Your task to perform on an android device: set the stopwatch Image 0: 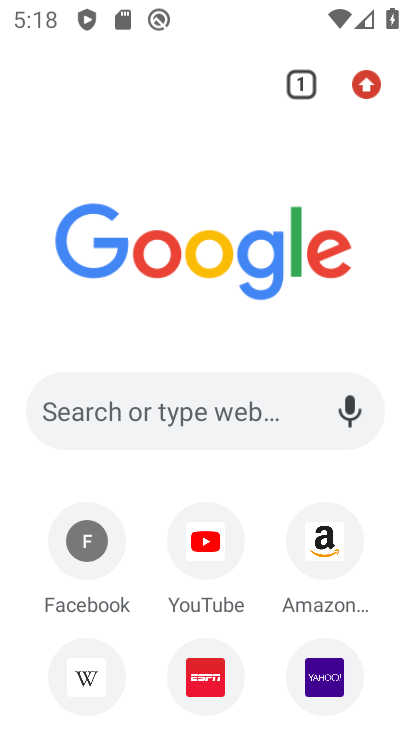
Step 0: press home button
Your task to perform on an android device: set the stopwatch Image 1: 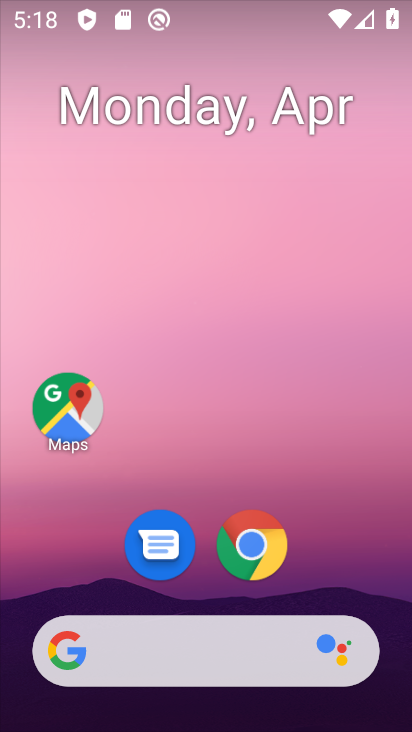
Step 1: drag from (328, 575) to (368, 154)
Your task to perform on an android device: set the stopwatch Image 2: 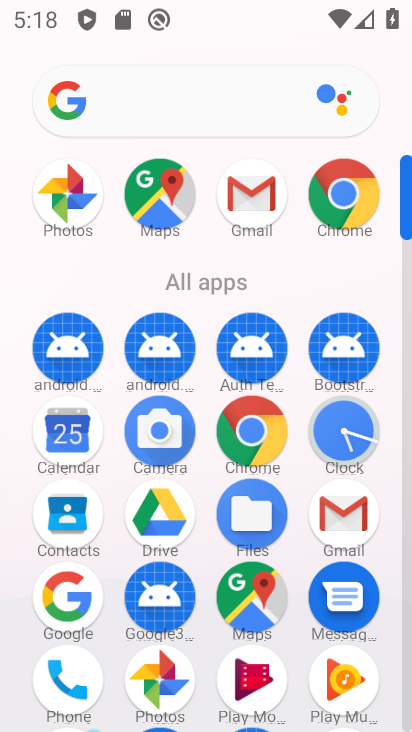
Step 2: click (346, 442)
Your task to perform on an android device: set the stopwatch Image 3: 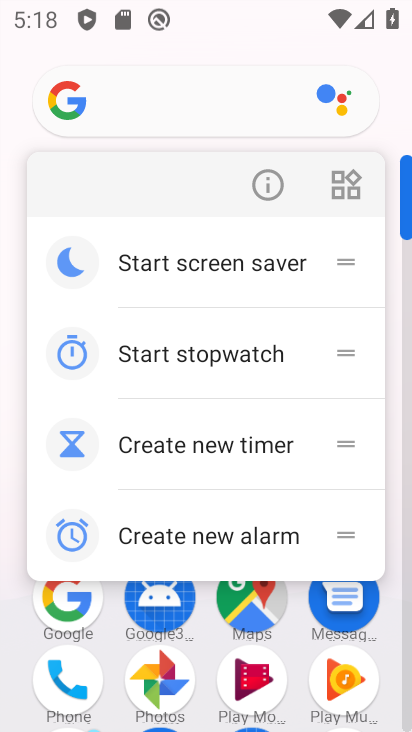
Step 3: click (395, 92)
Your task to perform on an android device: set the stopwatch Image 4: 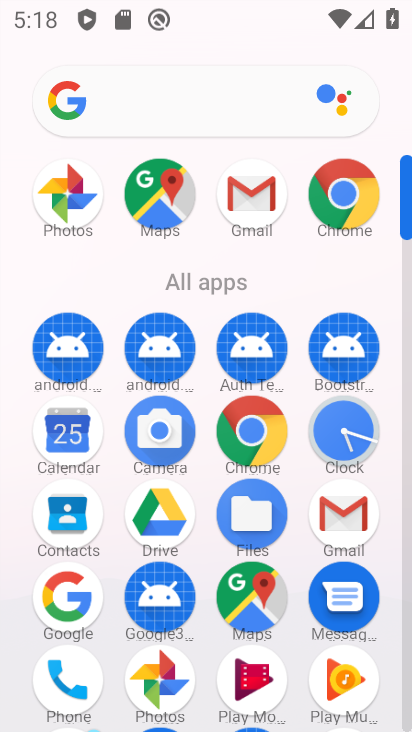
Step 4: click (395, 92)
Your task to perform on an android device: set the stopwatch Image 5: 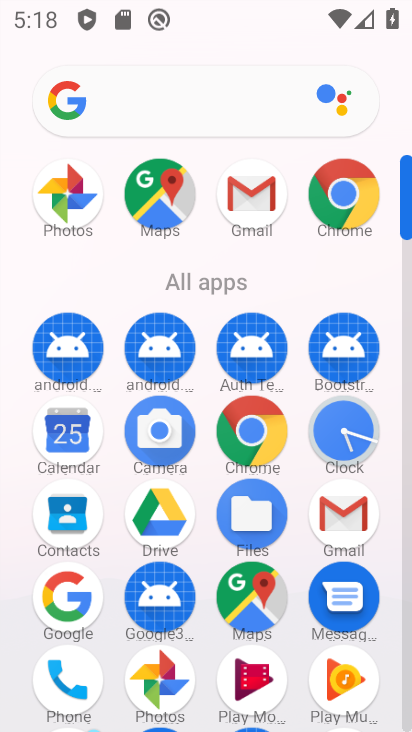
Step 5: click (395, 92)
Your task to perform on an android device: set the stopwatch Image 6: 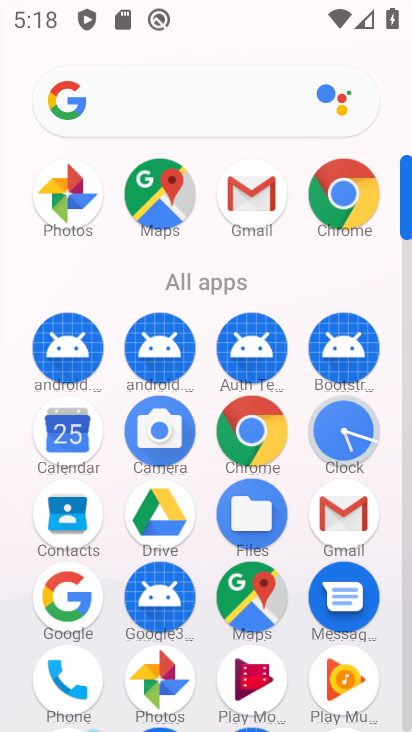
Step 6: click (361, 426)
Your task to perform on an android device: set the stopwatch Image 7: 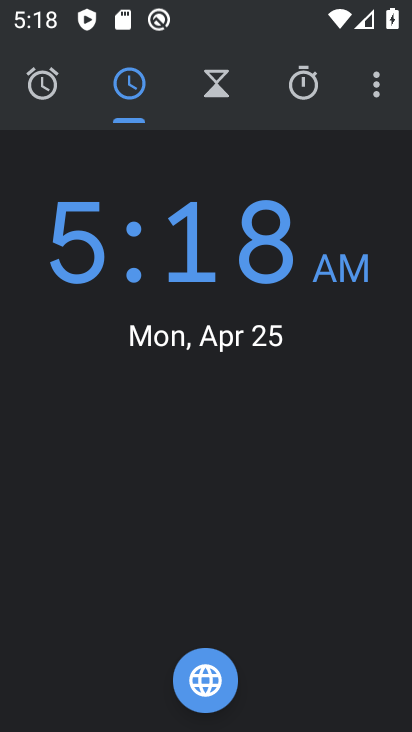
Step 7: click (308, 84)
Your task to perform on an android device: set the stopwatch Image 8: 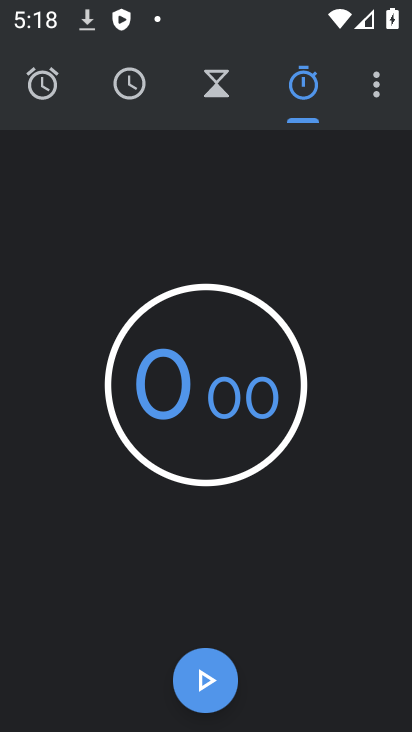
Step 8: click (200, 674)
Your task to perform on an android device: set the stopwatch Image 9: 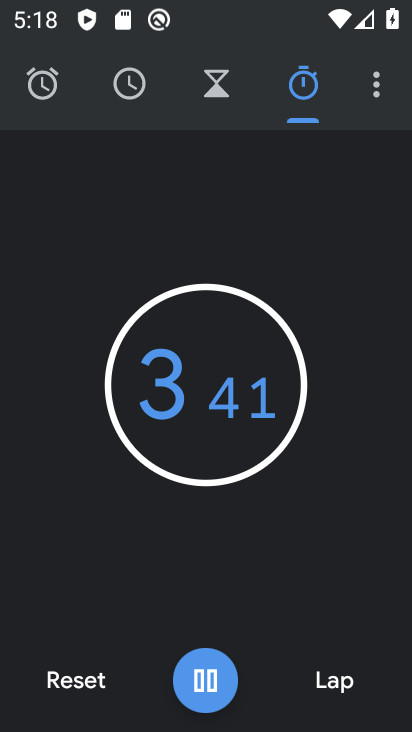
Step 9: task complete